Your task to perform on an android device: Open Yahoo.com Image 0: 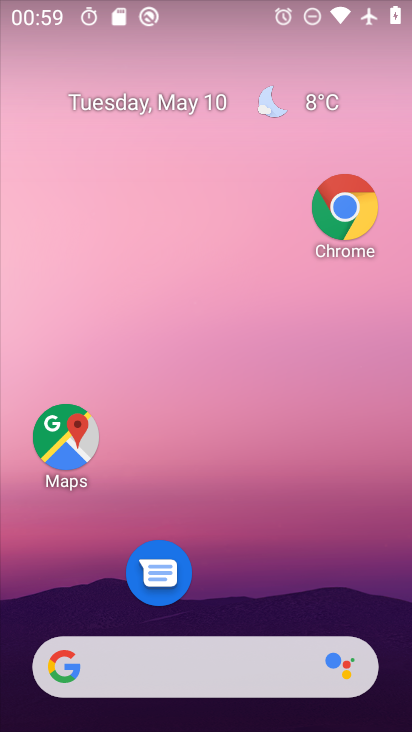
Step 0: drag from (290, 532) to (298, 94)
Your task to perform on an android device: Open Yahoo.com Image 1: 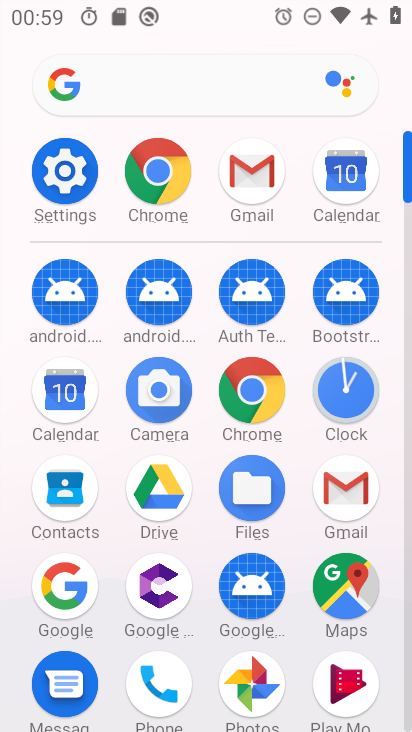
Step 1: click (255, 395)
Your task to perform on an android device: Open Yahoo.com Image 2: 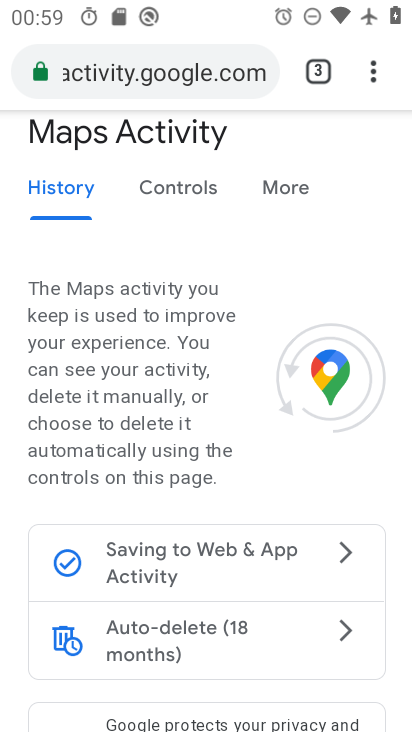
Step 2: click (185, 72)
Your task to perform on an android device: Open Yahoo.com Image 3: 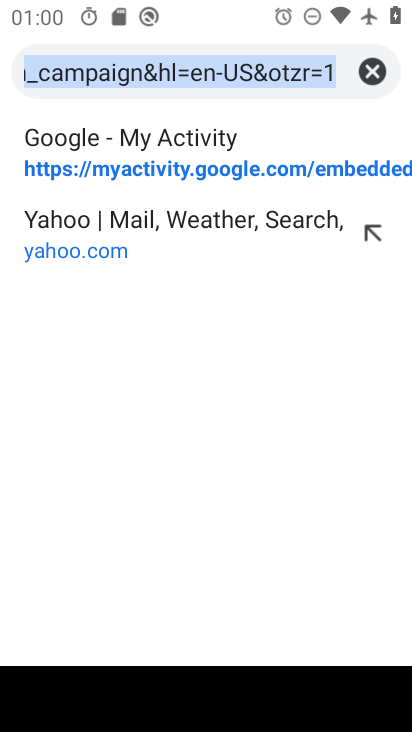
Step 3: type "yahoo.com"
Your task to perform on an android device: Open Yahoo.com Image 4: 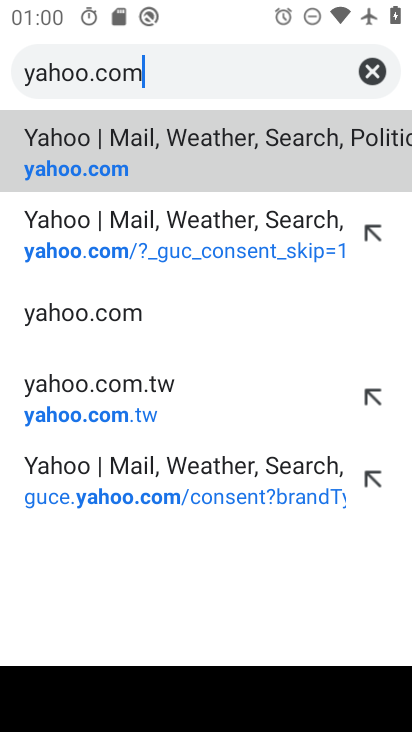
Step 4: click (39, 174)
Your task to perform on an android device: Open Yahoo.com Image 5: 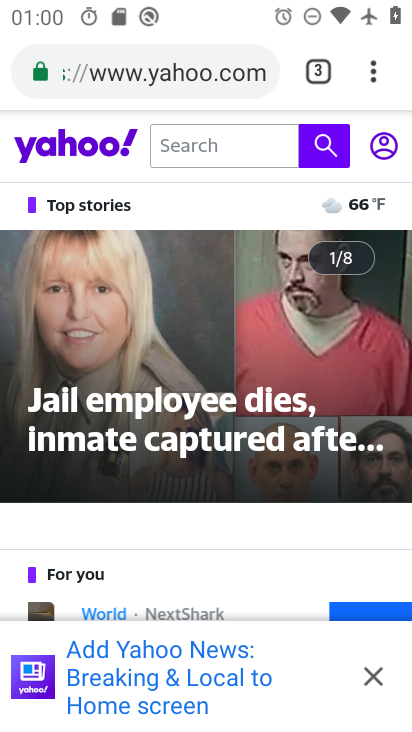
Step 5: task complete